Your task to perform on an android device: change the clock display to digital Image 0: 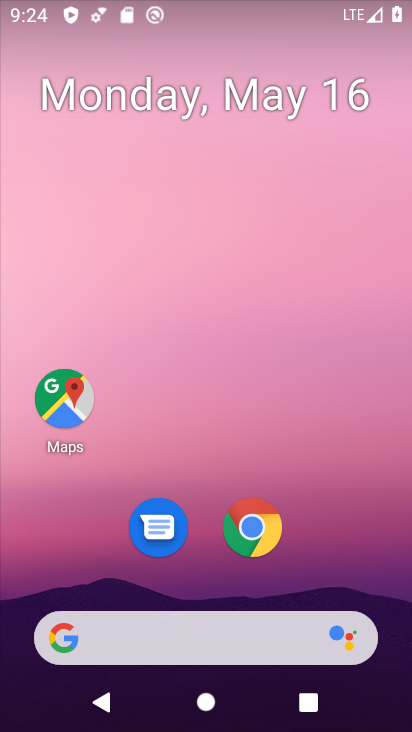
Step 0: drag from (346, 596) to (391, 4)
Your task to perform on an android device: change the clock display to digital Image 1: 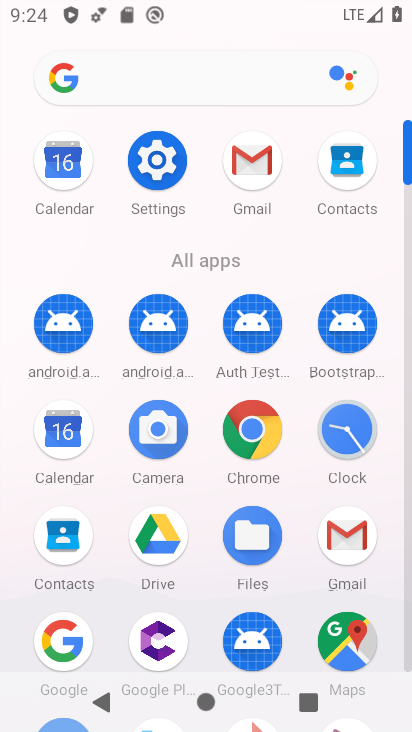
Step 1: click (345, 438)
Your task to perform on an android device: change the clock display to digital Image 2: 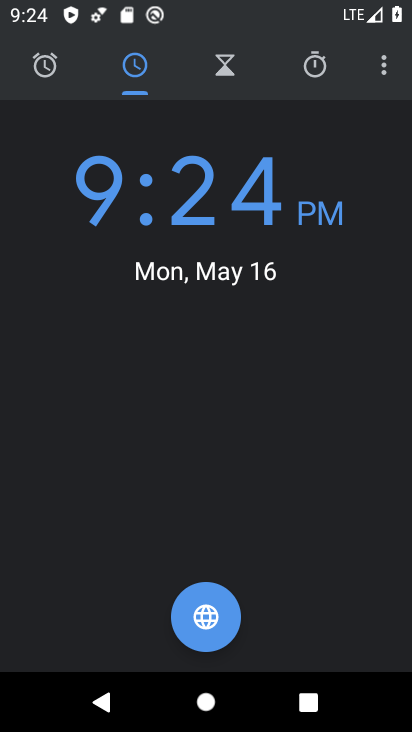
Step 2: click (384, 75)
Your task to perform on an android device: change the clock display to digital Image 3: 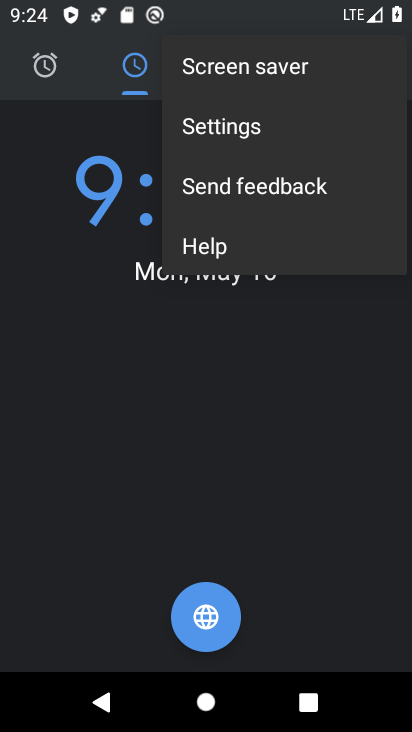
Step 3: click (236, 135)
Your task to perform on an android device: change the clock display to digital Image 4: 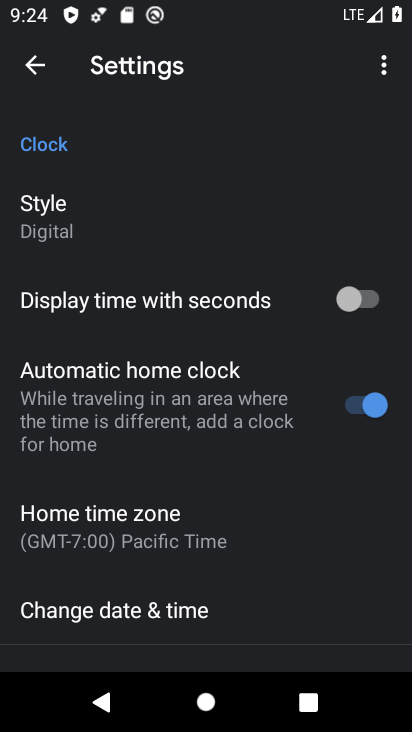
Step 4: task complete